Your task to perform on an android device: set the timer Image 0: 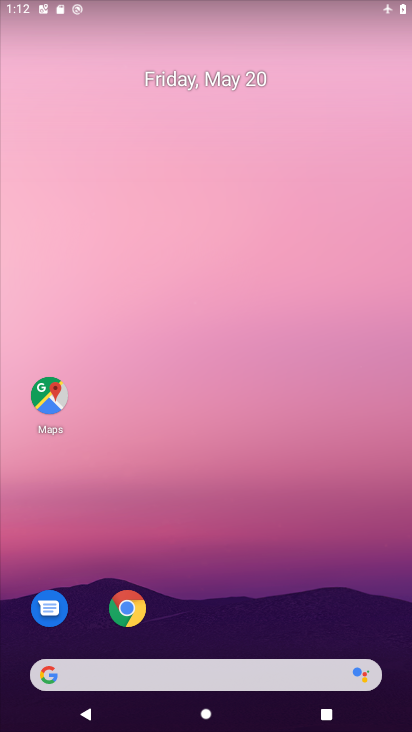
Step 0: drag from (232, 543) to (212, 56)
Your task to perform on an android device: set the timer Image 1: 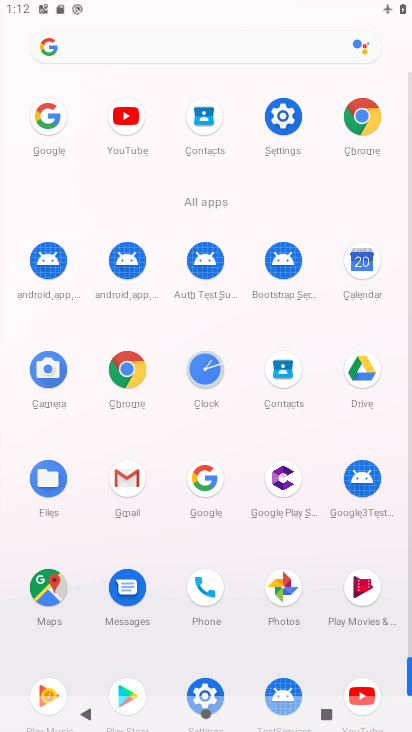
Step 1: click (199, 384)
Your task to perform on an android device: set the timer Image 2: 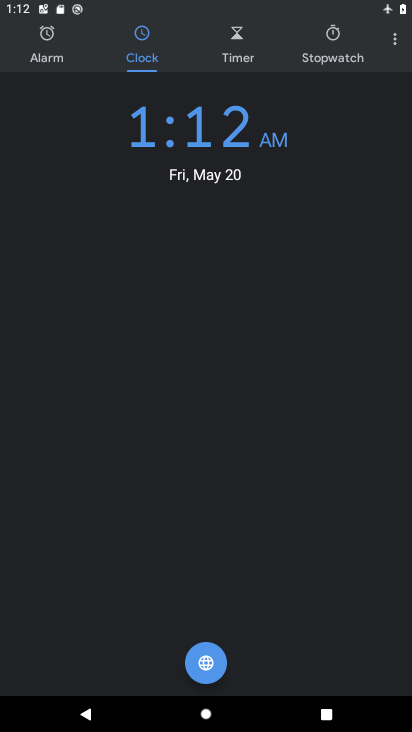
Step 2: click (246, 58)
Your task to perform on an android device: set the timer Image 3: 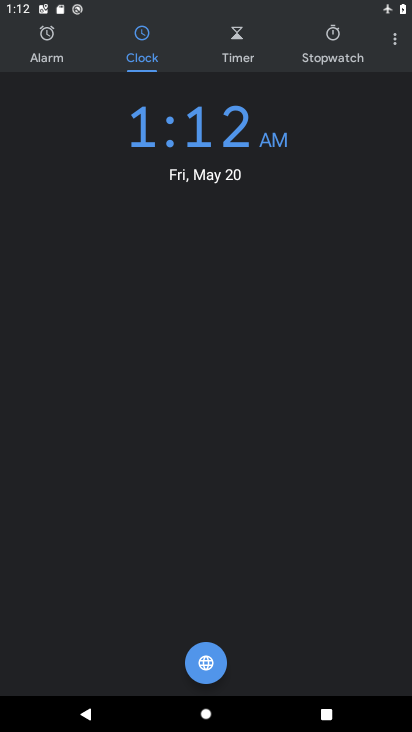
Step 3: click (237, 48)
Your task to perform on an android device: set the timer Image 4: 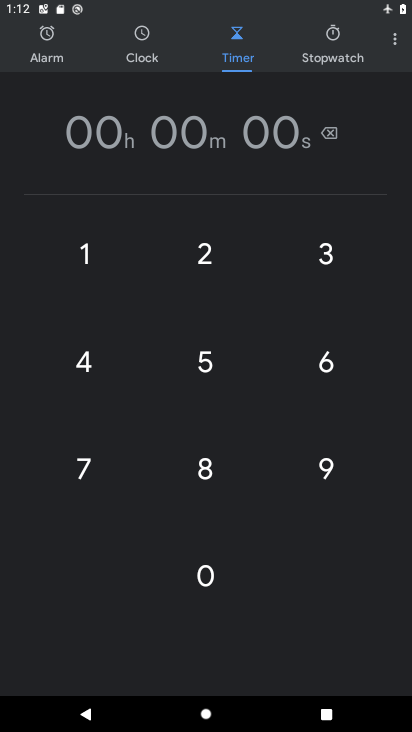
Step 4: click (211, 264)
Your task to perform on an android device: set the timer Image 5: 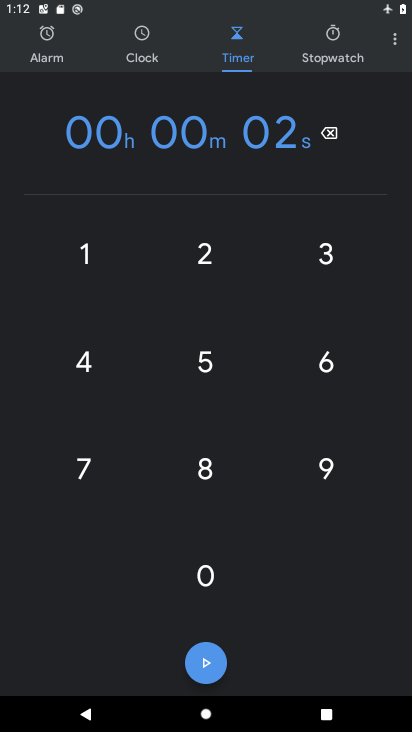
Step 5: click (328, 256)
Your task to perform on an android device: set the timer Image 6: 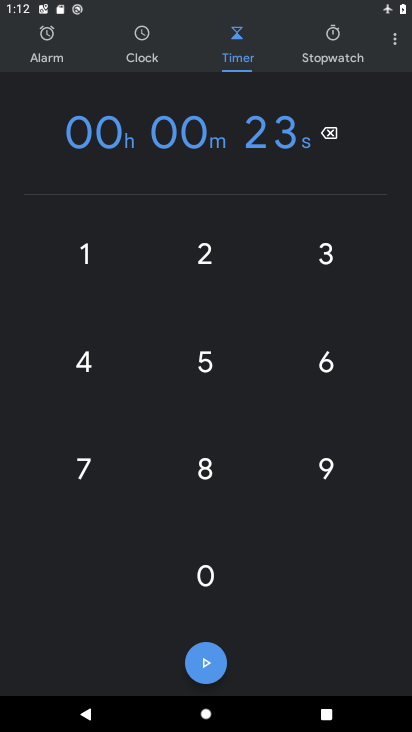
Step 6: click (222, 361)
Your task to perform on an android device: set the timer Image 7: 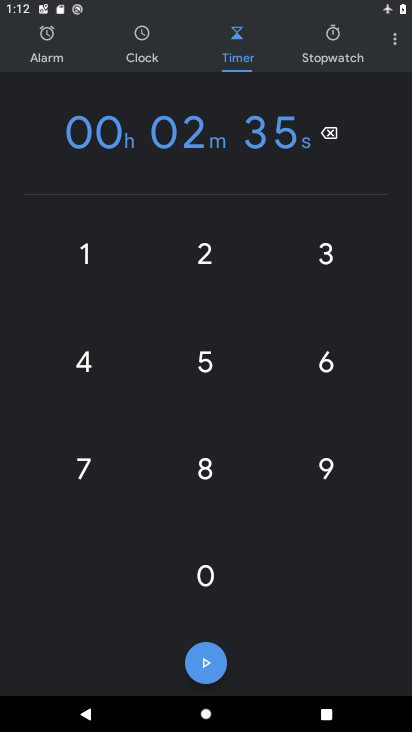
Step 7: click (197, 676)
Your task to perform on an android device: set the timer Image 8: 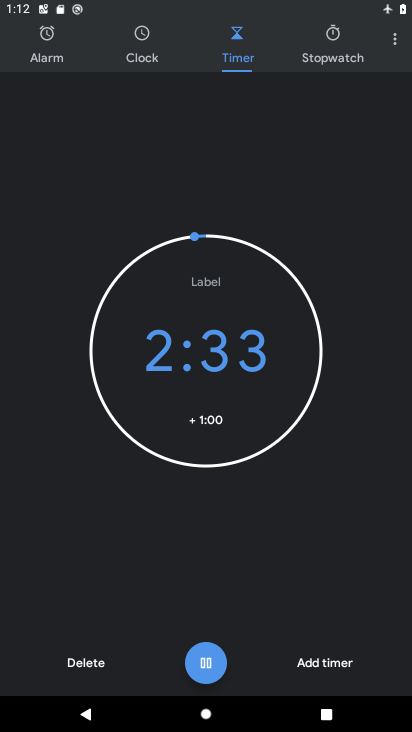
Step 8: task complete